Your task to perform on an android device: turn off wifi Image 0: 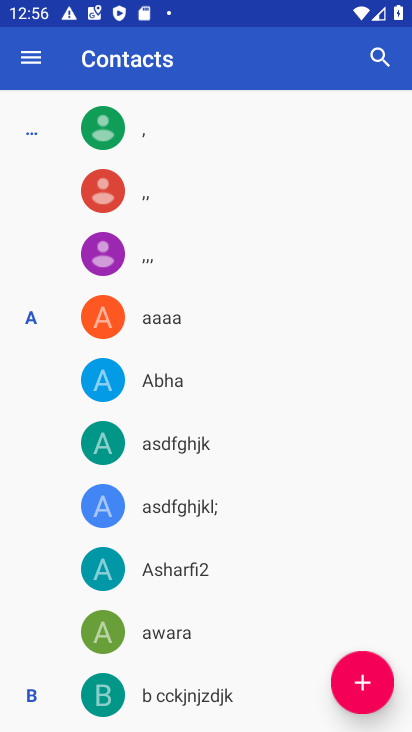
Step 0: press home button
Your task to perform on an android device: turn off wifi Image 1: 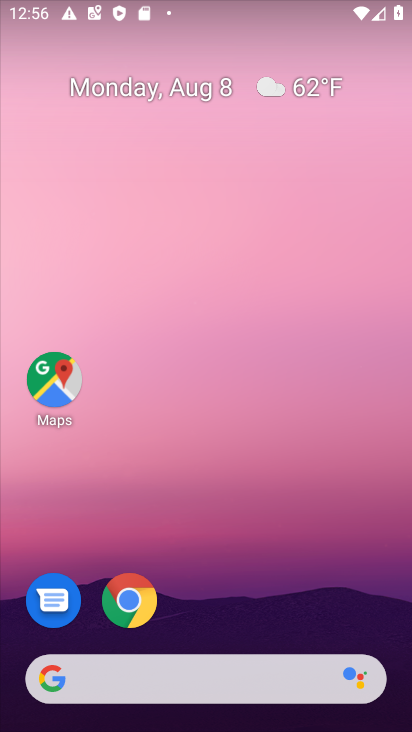
Step 1: click (234, 196)
Your task to perform on an android device: turn off wifi Image 2: 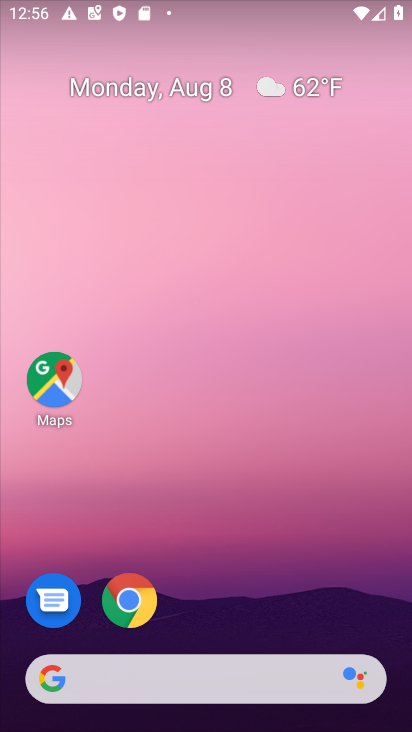
Step 2: drag from (210, 601) to (213, 179)
Your task to perform on an android device: turn off wifi Image 3: 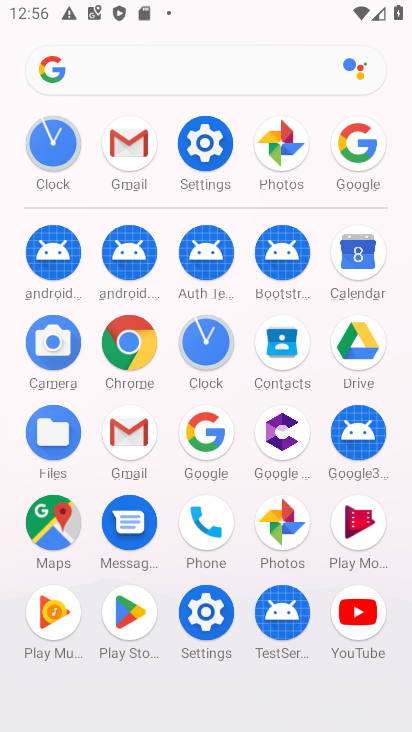
Step 3: click (208, 162)
Your task to perform on an android device: turn off wifi Image 4: 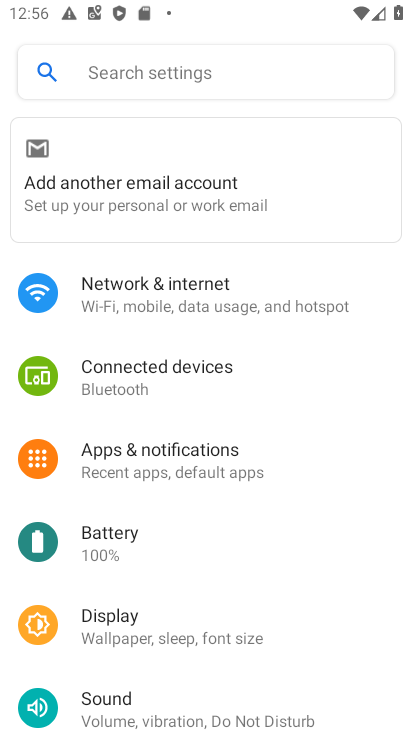
Step 4: click (188, 301)
Your task to perform on an android device: turn off wifi Image 5: 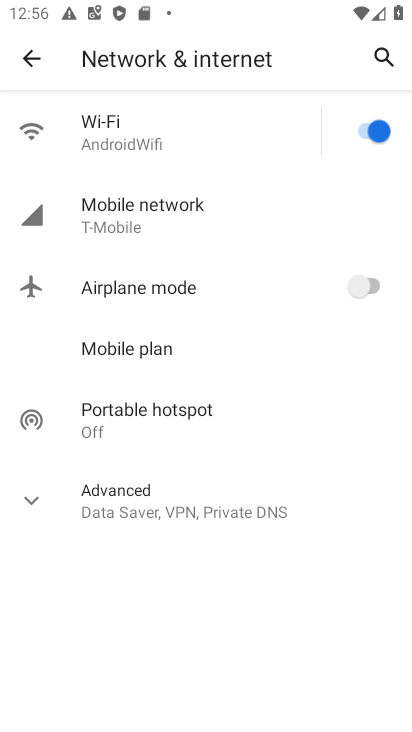
Step 5: click (356, 134)
Your task to perform on an android device: turn off wifi Image 6: 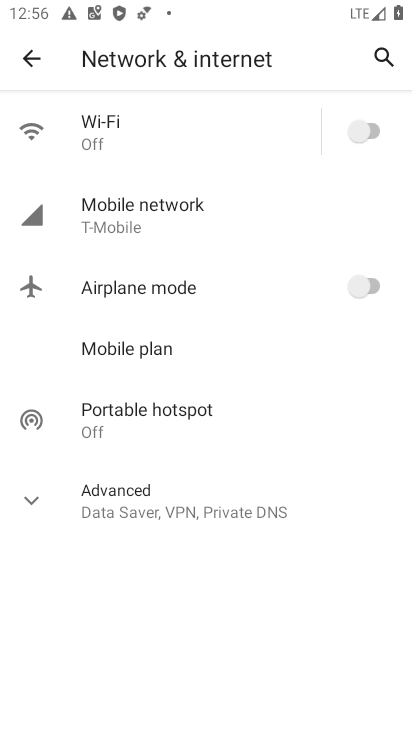
Step 6: task complete